Your task to perform on an android device: turn on airplane mode Image 0: 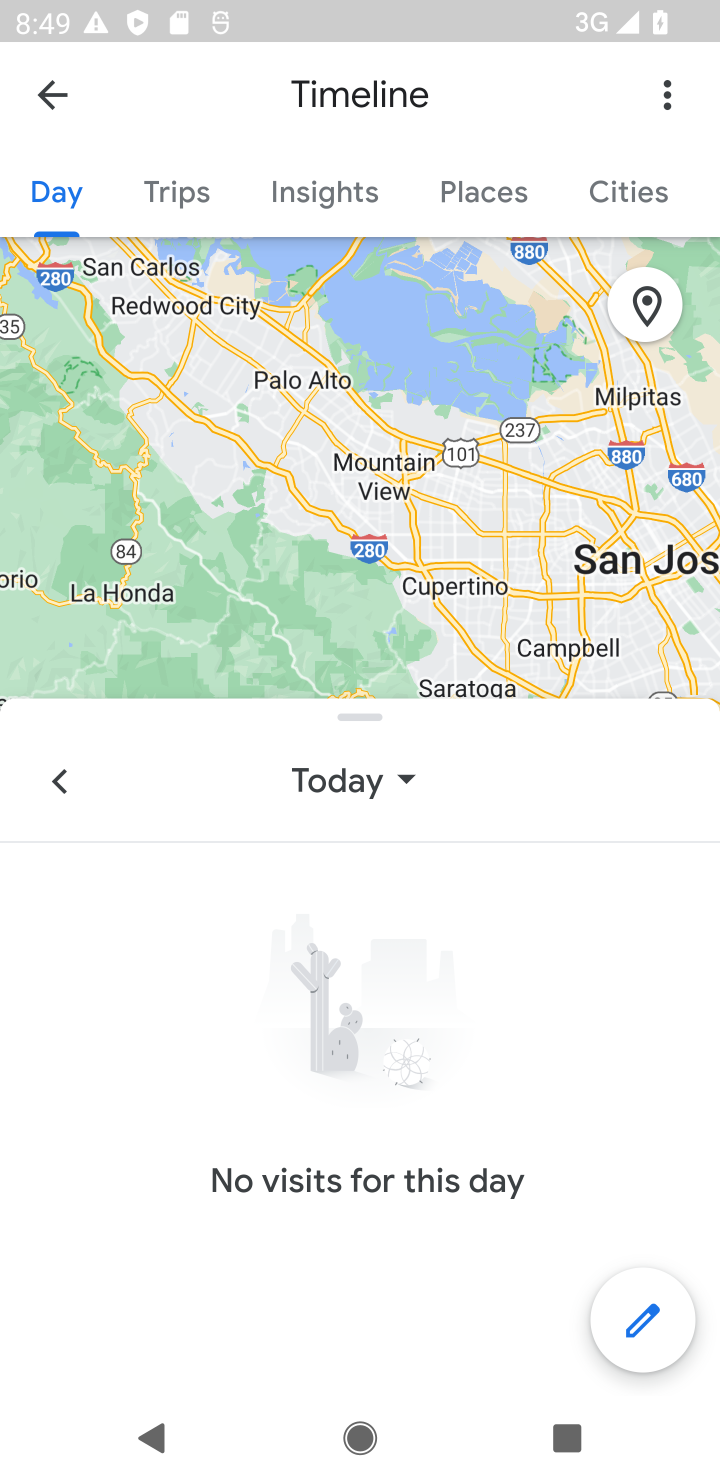
Step 0: drag from (350, 14) to (316, 1356)
Your task to perform on an android device: turn on airplane mode Image 1: 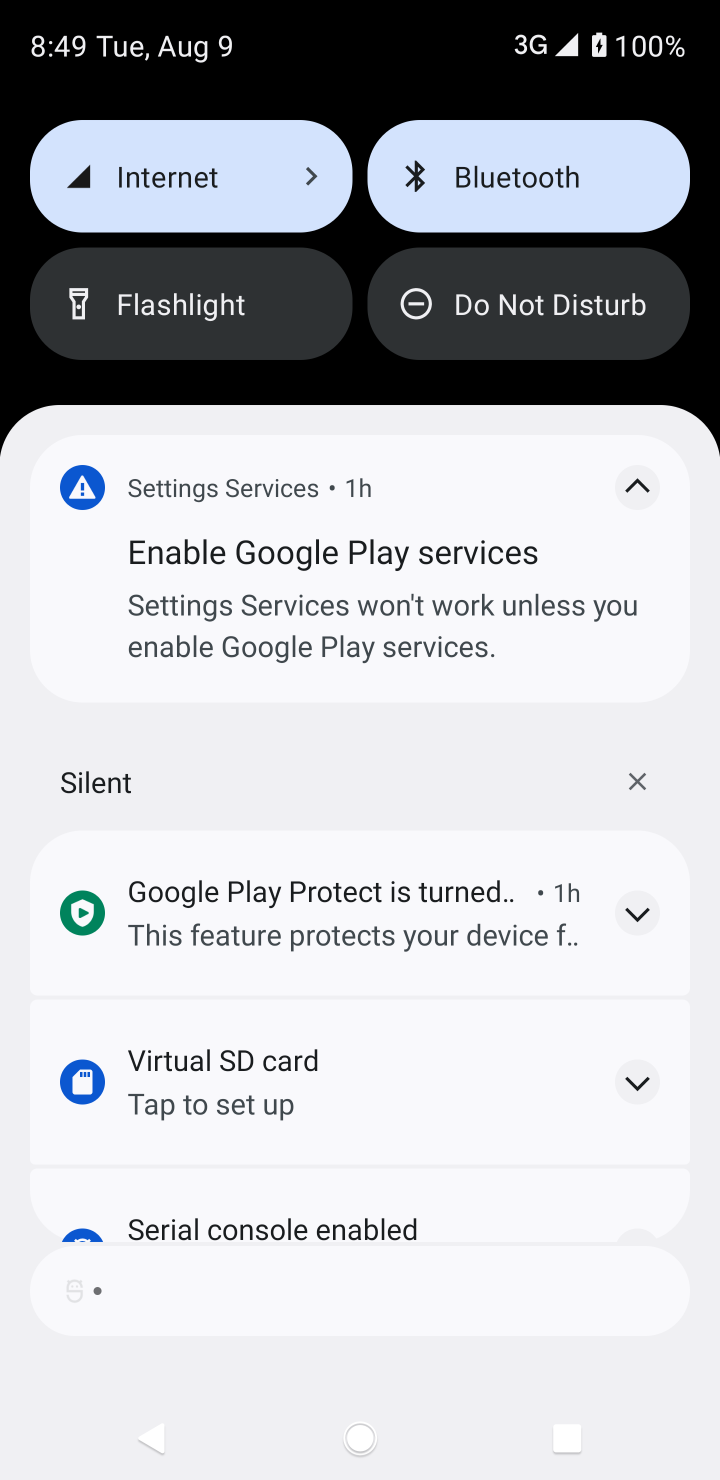
Step 1: drag from (345, 242) to (432, 1174)
Your task to perform on an android device: turn on airplane mode Image 2: 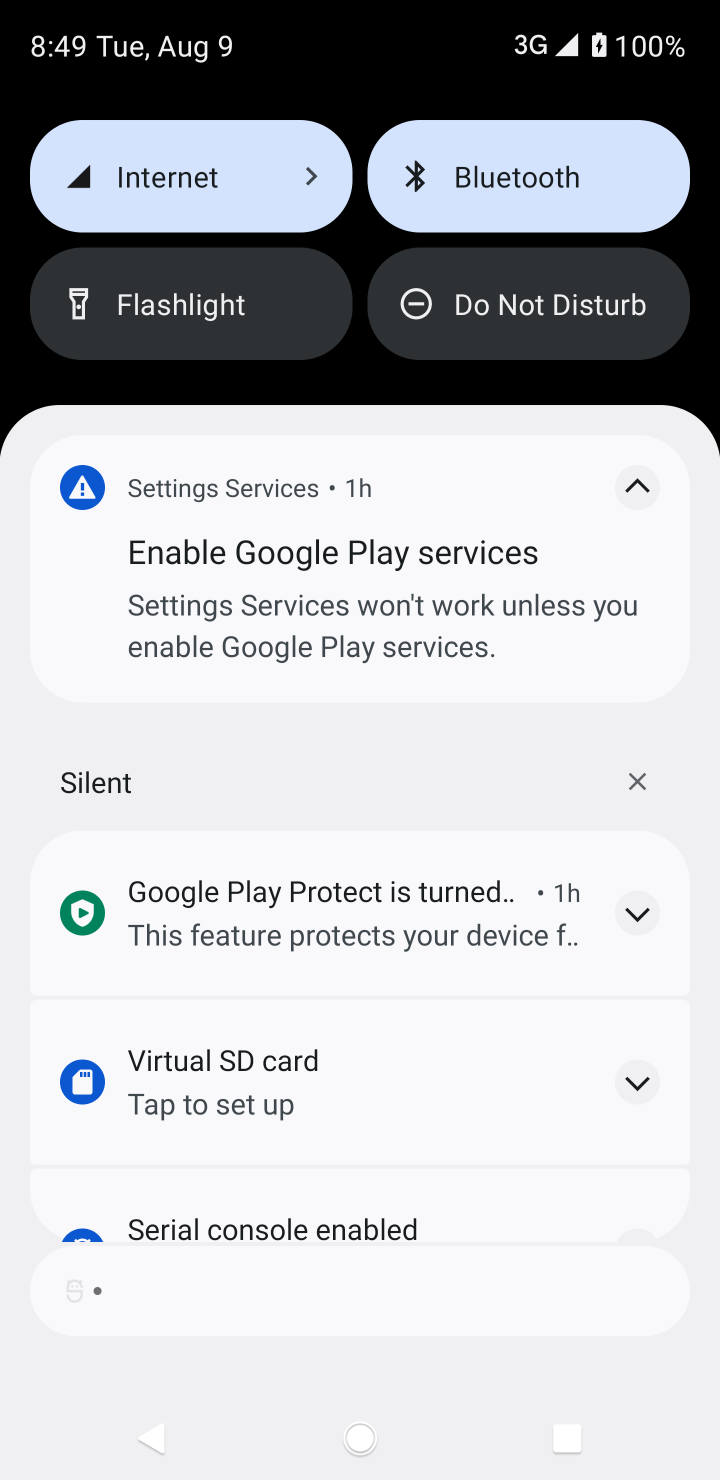
Step 2: drag from (362, 261) to (463, 1269)
Your task to perform on an android device: turn on airplane mode Image 3: 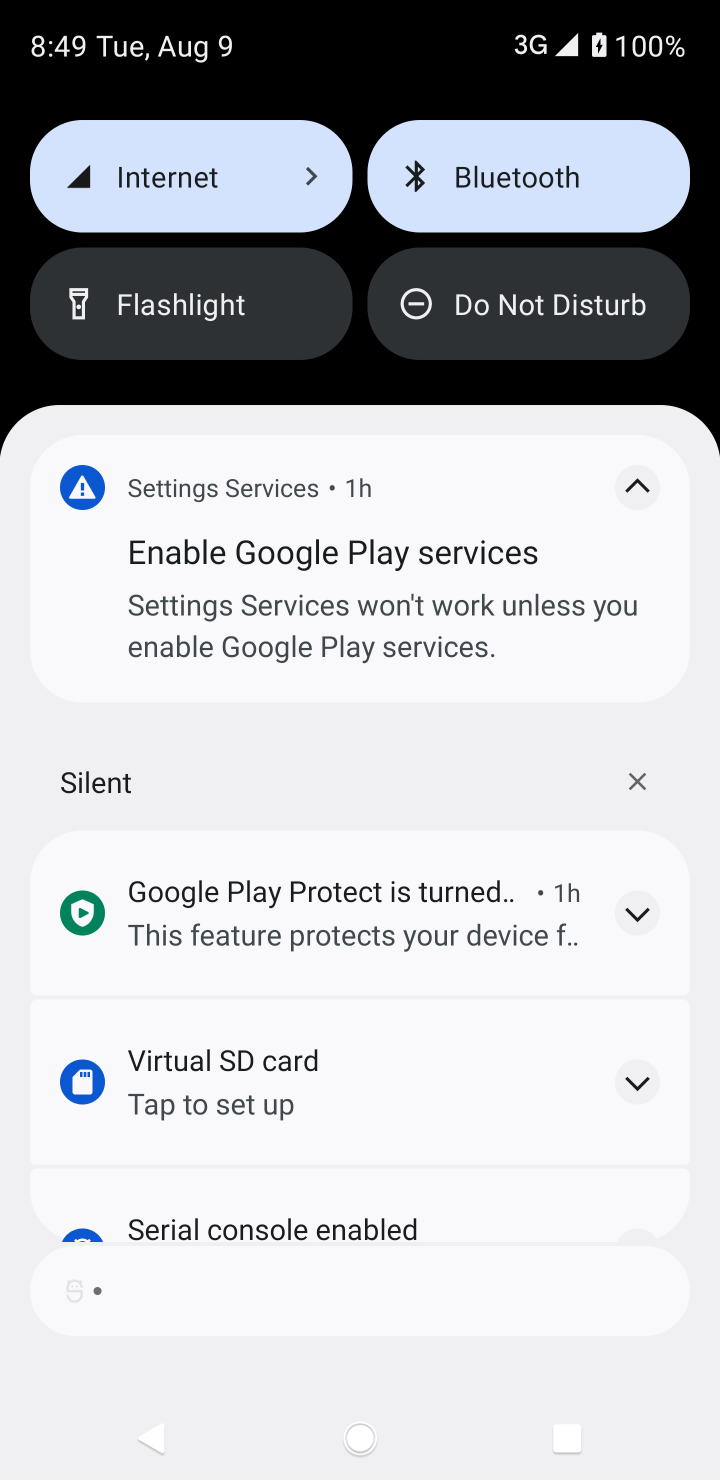
Step 3: drag from (382, 110) to (385, 990)
Your task to perform on an android device: turn on airplane mode Image 4: 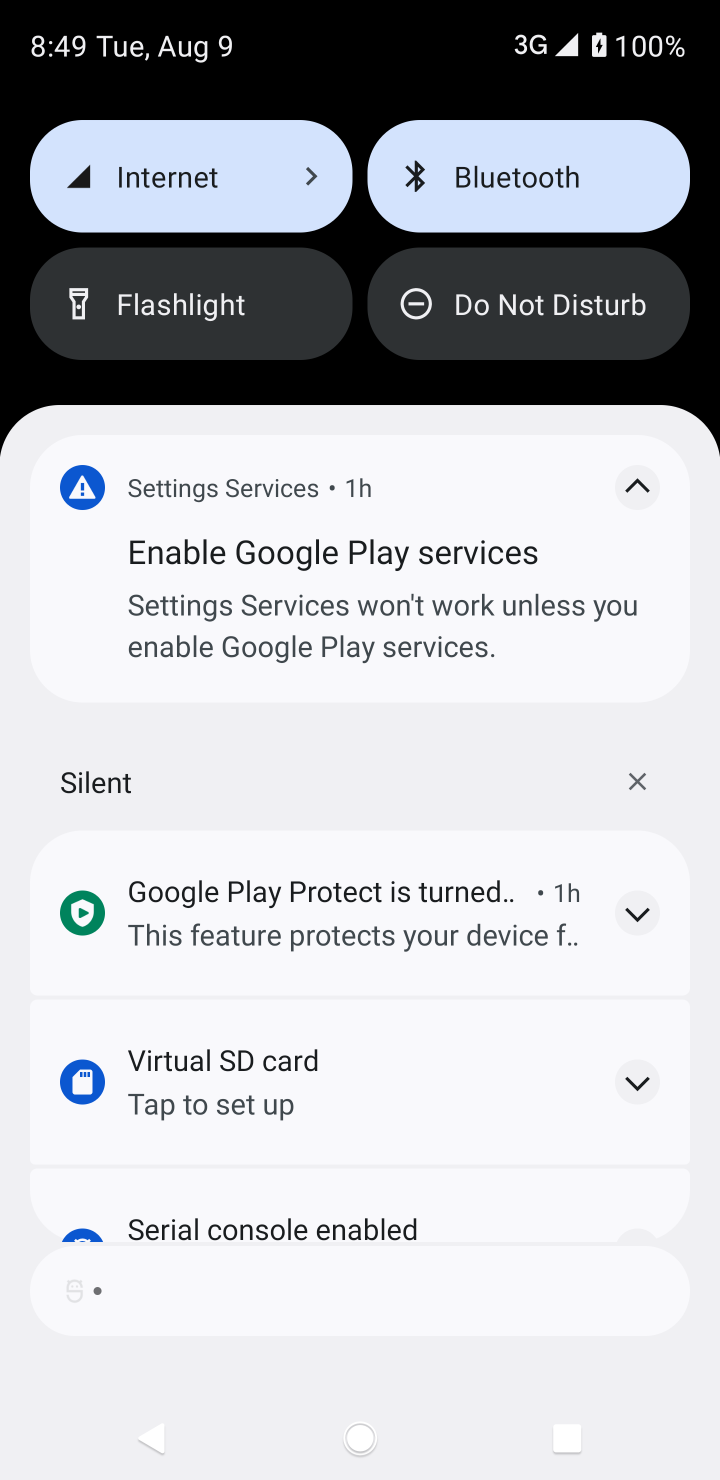
Step 4: drag from (352, 252) to (591, 1137)
Your task to perform on an android device: turn on airplane mode Image 5: 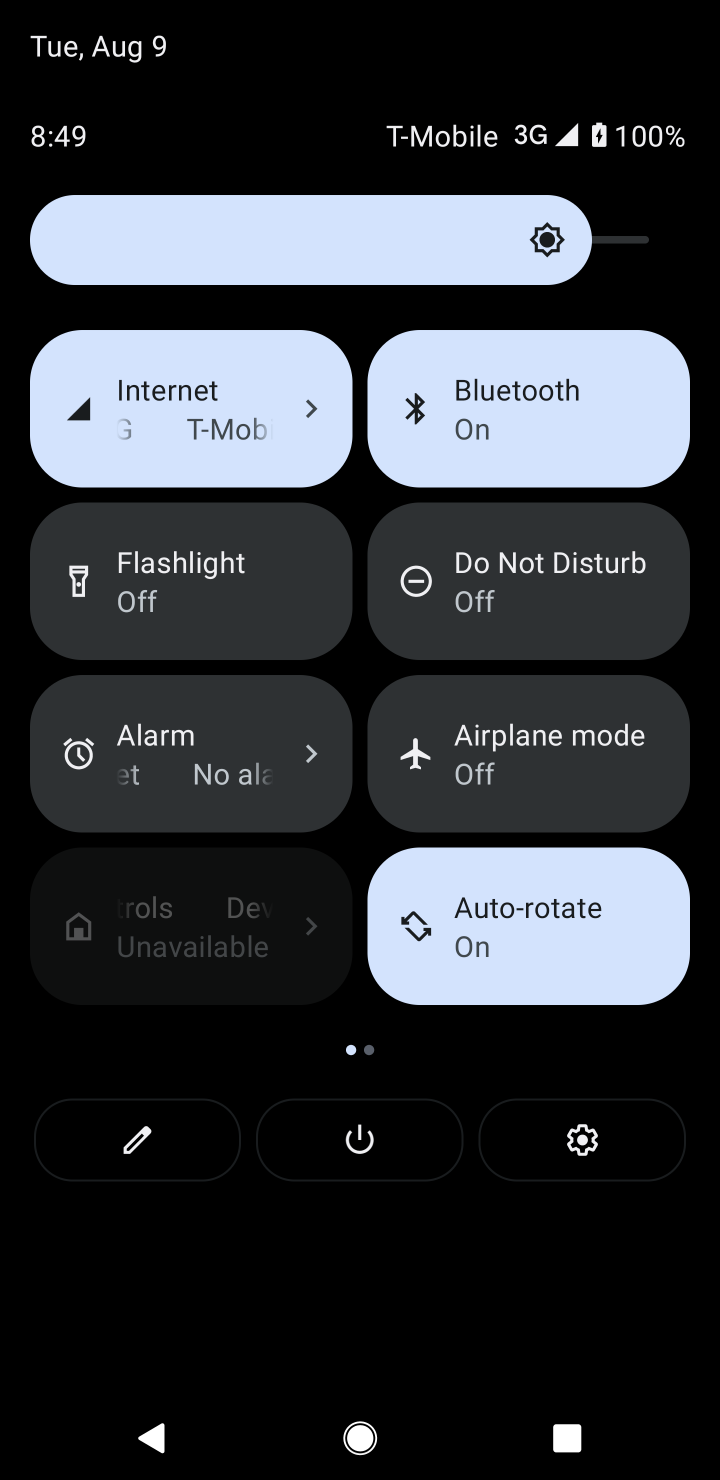
Step 5: click (511, 719)
Your task to perform on an android device: turn on airplane mode Image 6: 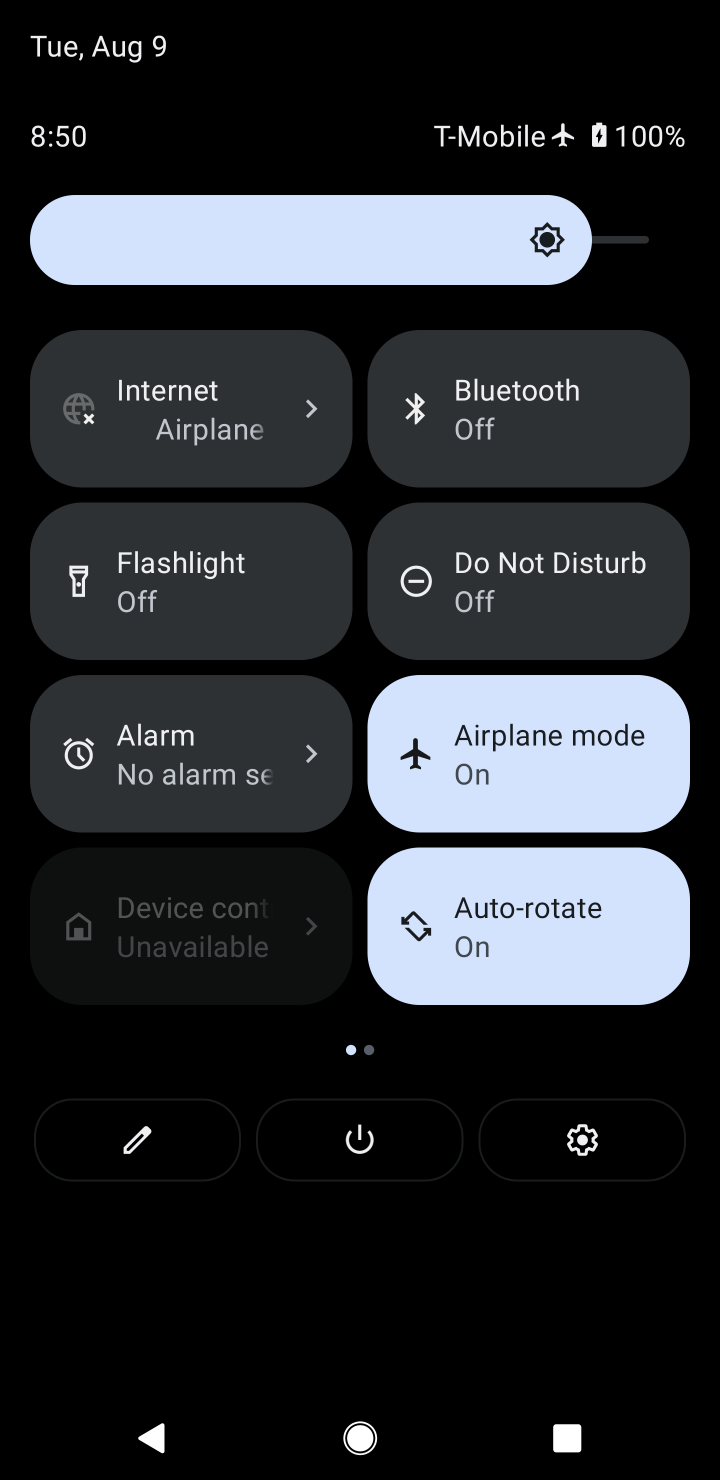
Step 6: task complete